Your task to perform on an android device: Toggle the flashlight Image 0: 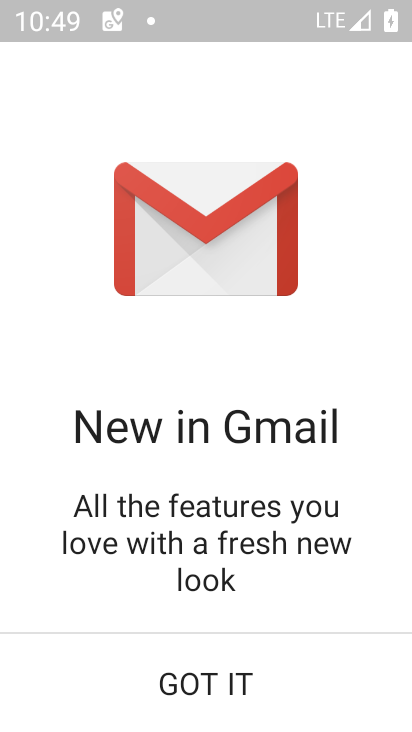
Step 0: press home button
Your task to perform on an android device: Toggle the flashlight Image 1: 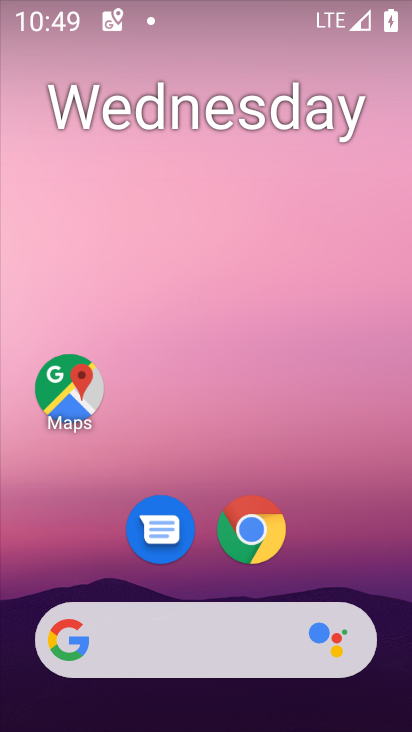
Step 1: drag from (217, 19) to (267, 610)
Your task to perform on an android device: Toggle the flashlight Image 2: 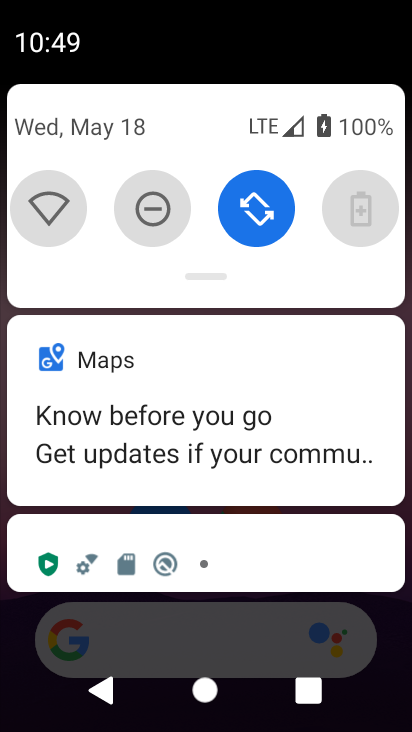
Step 2: drag from (200, 268) to (205, 584)
Your task to perform on an android device: Toggle the flashlight Image 3: 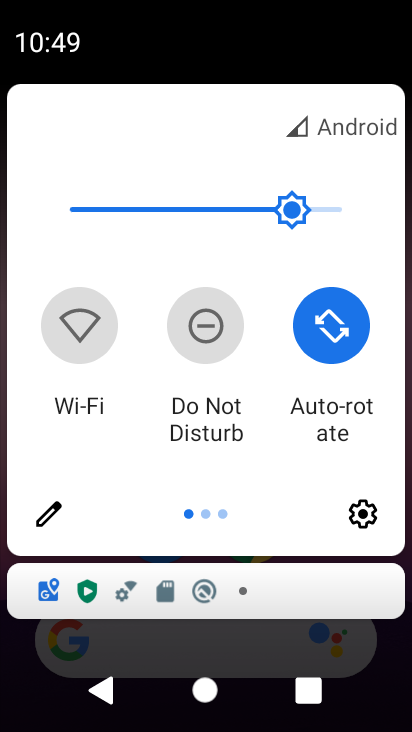
Step 3: click (45, 514)
Your task to perform on an android device: Toggle the flashlight Image 4: 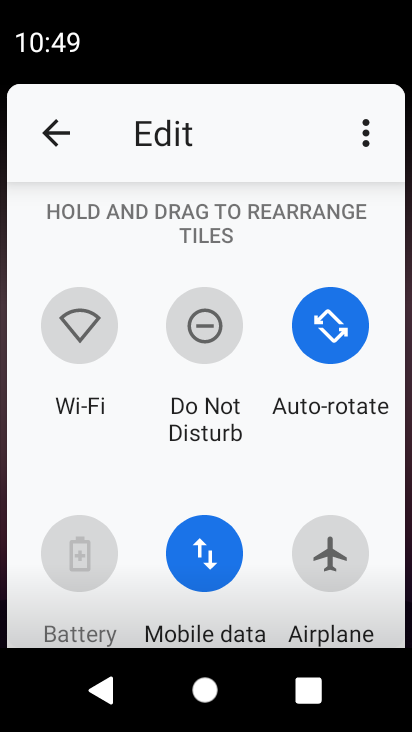
Step 4: click (45, 514)
Your task to perform on an android device: Toggle the flashlight Image 5: 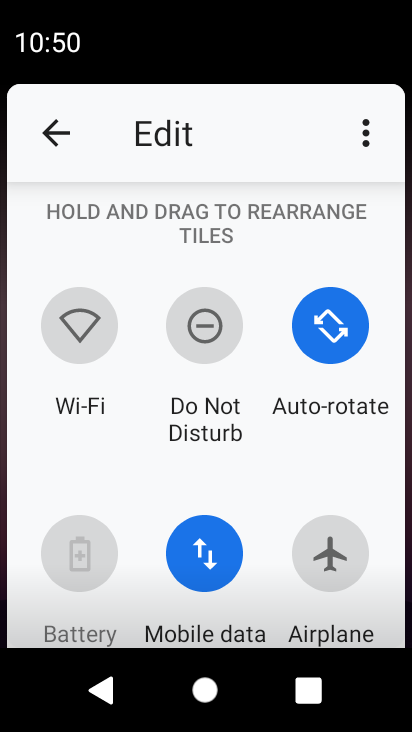
Step 5: task complete